Your task to perform on an android device: open chrome privacy settings Image 0: 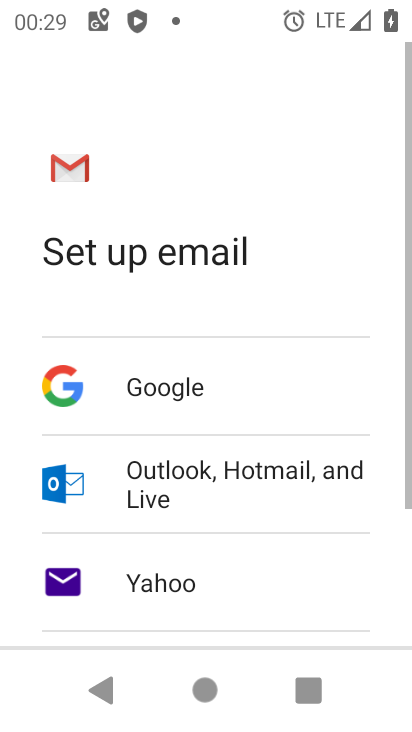
Step 0: press home button
Your task to perform on an android device: open chrome privacy settings Image 1: 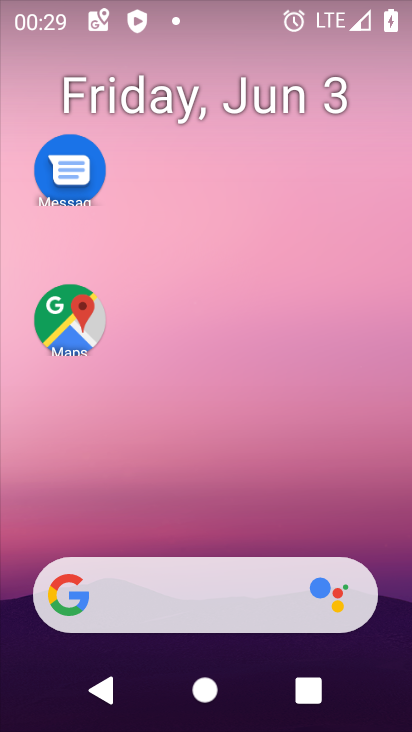
Step 1: drag from (224, 527) to (270, 35)
Your task to perform on an android device: open chrome privacy settings Image 2: 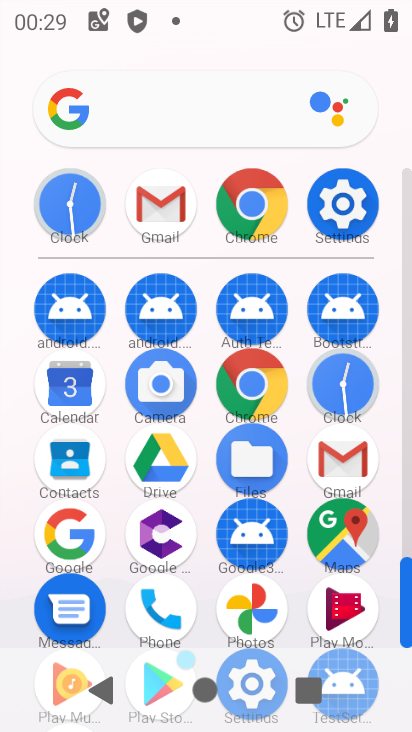
Step 2: click (342, 203)
Your task to perform on an android device: open chrome privacy settings Image 3: 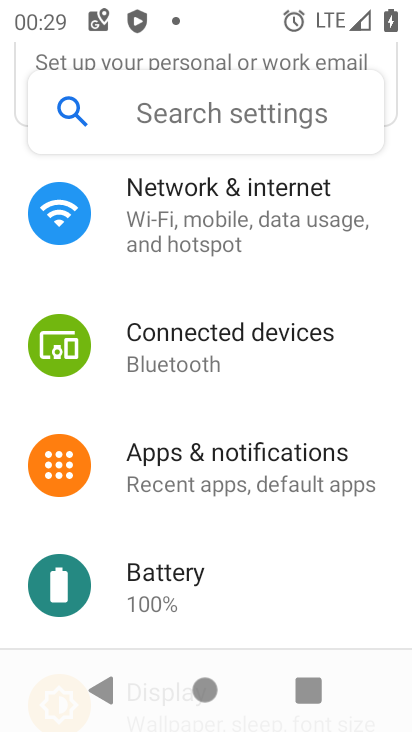
Step 3: drag from (228, 542) to (239, 300)
Your task to perform on an android device: open chrome privacy settings Image 4: 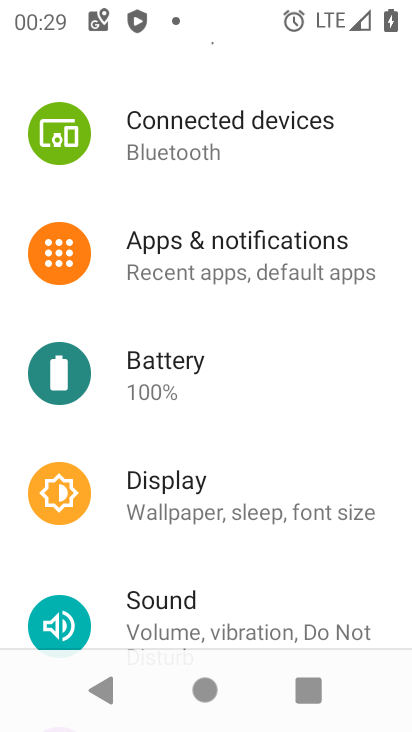
Step 4: press home button
Your task to perform on an android device: open chrome privacy settings Image 5: 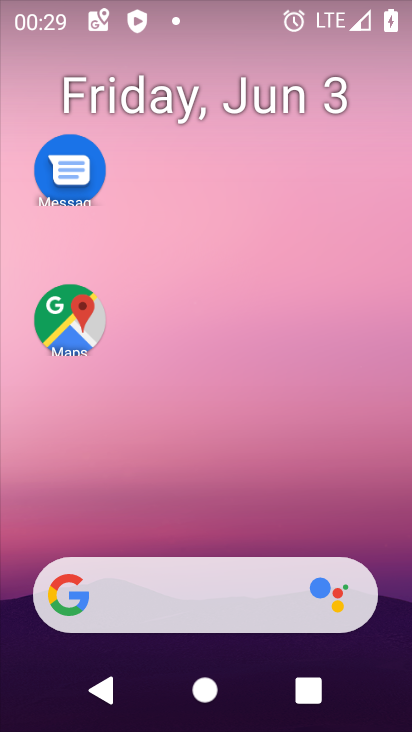
Step 5: drag from (305, 434) to (313, 66)
Your task to perform on an android device: open chrome privacy settings Image 6: 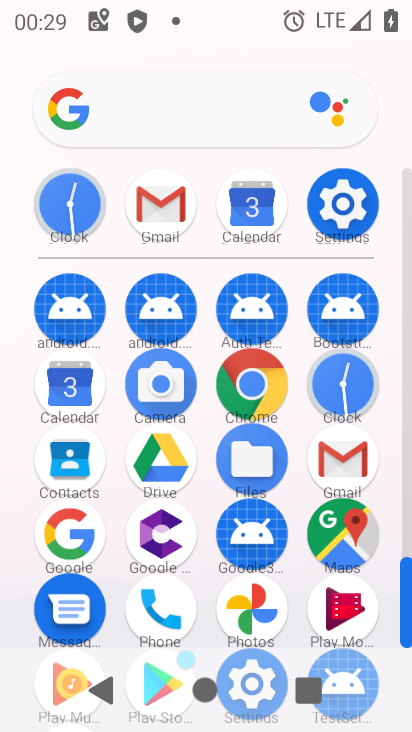
Step 6: click (246, 368)
Your task to perform on an android device: open chrome privacy settings Image 7: 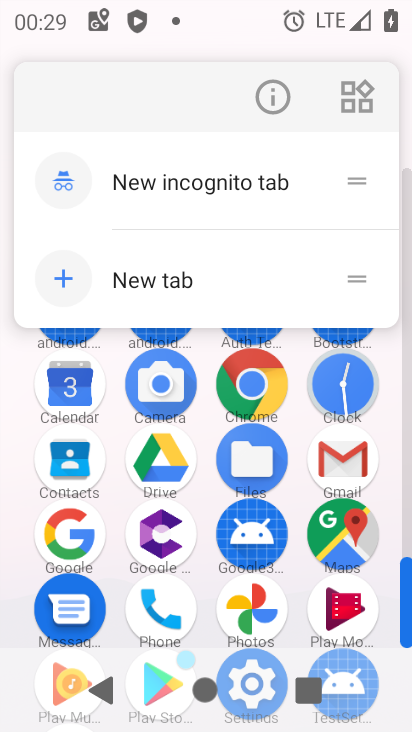
Step 7: click (246, 368)
Your task to perform on an android device: open chrome privacy settings Image 8: 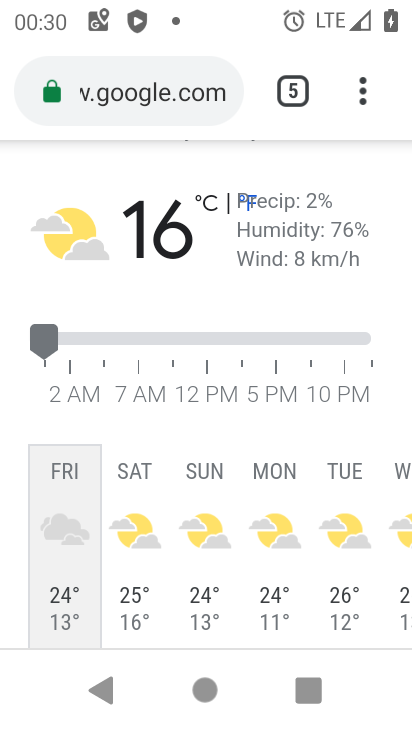
Step 8: drag from (375, 89) to (89, 486)
Your task to perform on an android device: open chrome privacy settings Image 9: 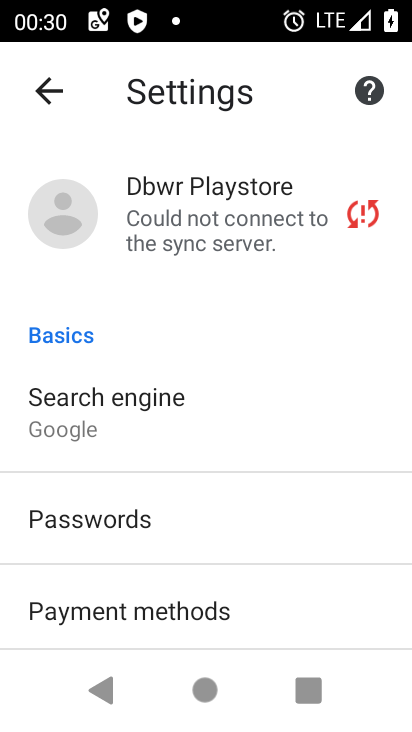
Step 9: drag from (320, 570) to (279, 33)
Your task to perform on an android device: open chrome privacy settings Image 10: 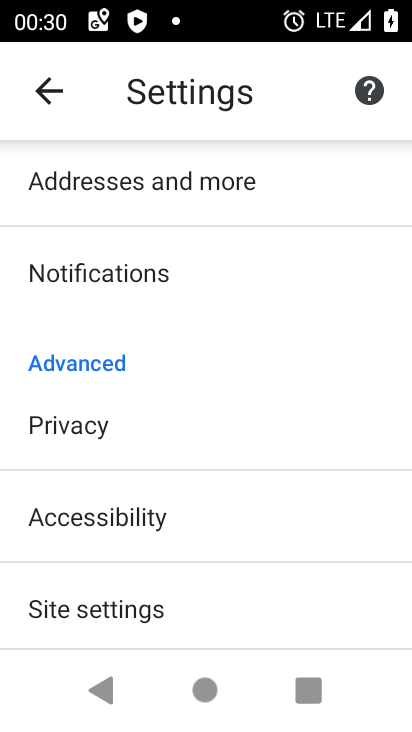
Step 10: drag from (275, 579) to (238, 143)
Your task to perform on an android device: open chrome privacy settings Image 11: 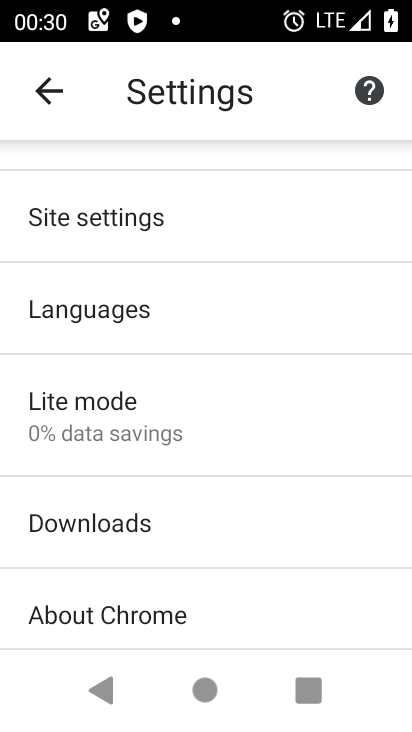
Step 11: drag from (226, 220) to (198, 552)
Your task to perform on an android device: open chrome privacy settings Image 12: 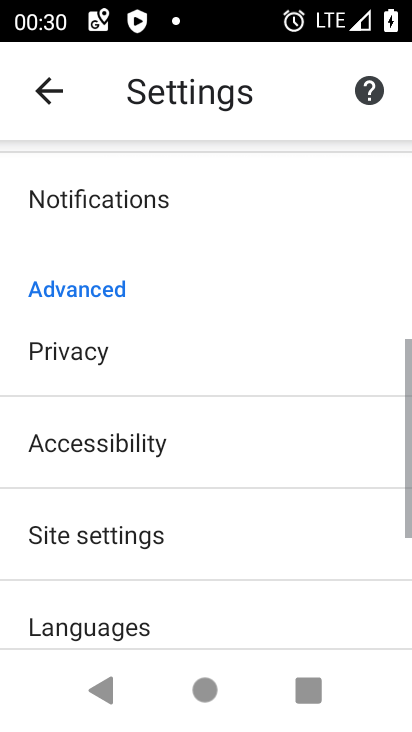
Step 12: click (117, 354)
Your task to perform on an android device: open chrome privacy settings Image 13: 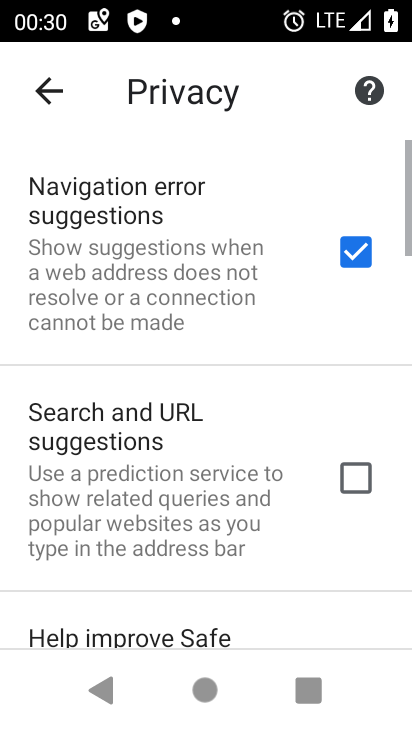
Step 13: task complete